Your task to perform on an android device: Show the shopping cart on amazon.com. Image 0: 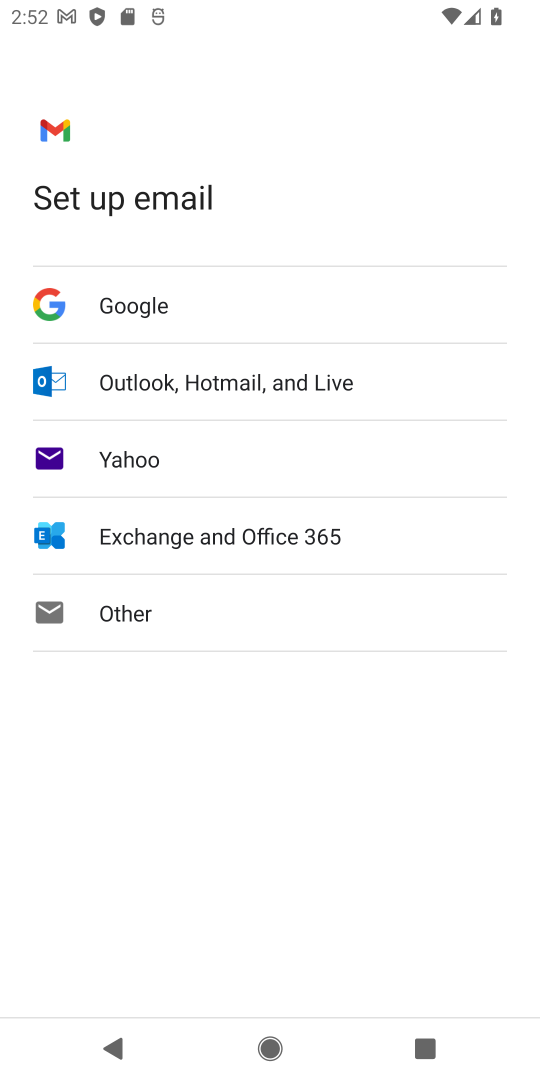
Step 0: press home button
Your task to perform on an android device: Show the shopping cart on amazon.com. Image 1: 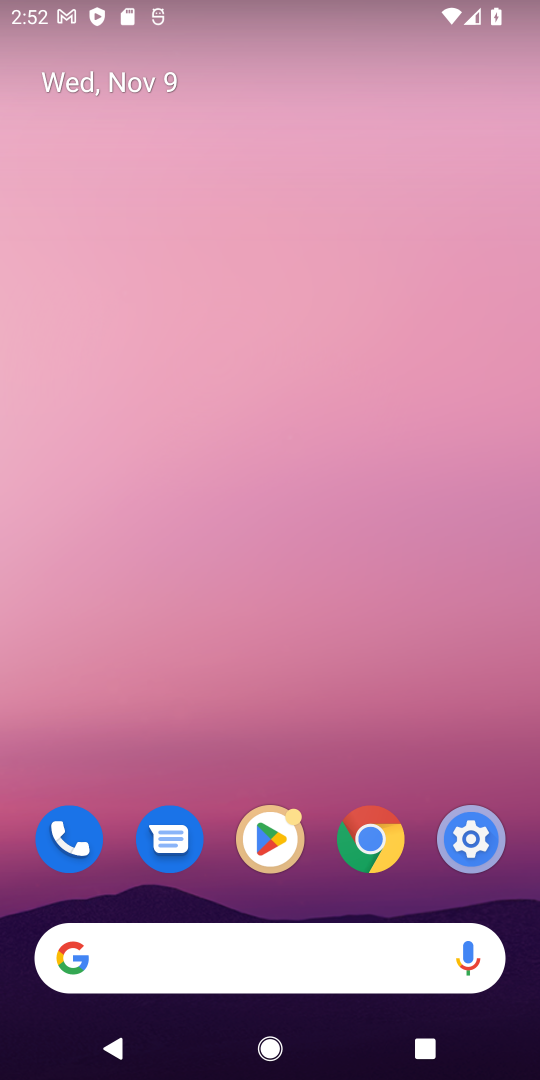
Step 1: click (295, 954)
Your task to perform on an android device: Show the shopping cart on amazon.com. Image 2: 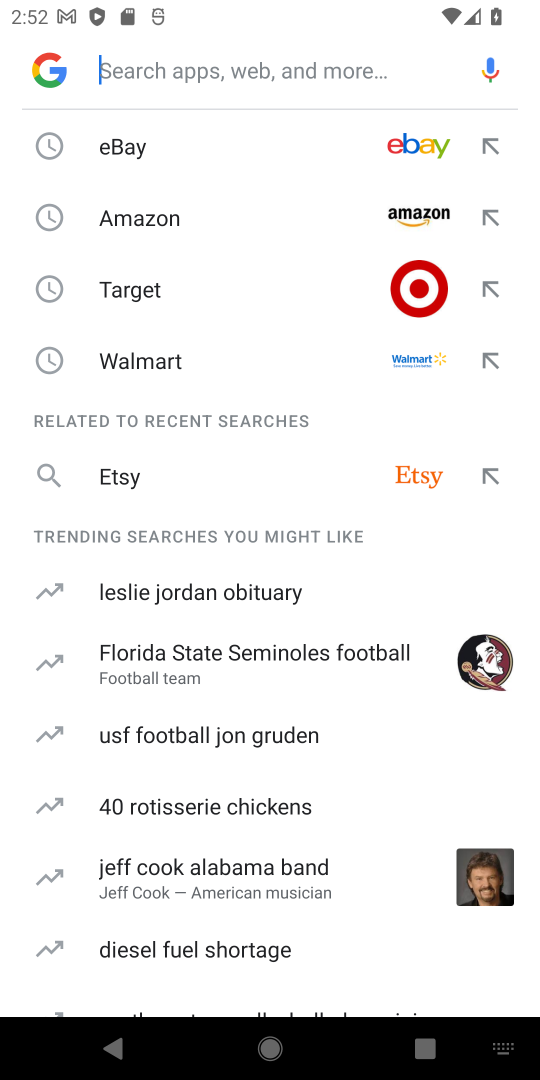
Step 2: click (269, 237)
Your task to perform on an android device: Show the shopping cart on amazon.com. Image 3: 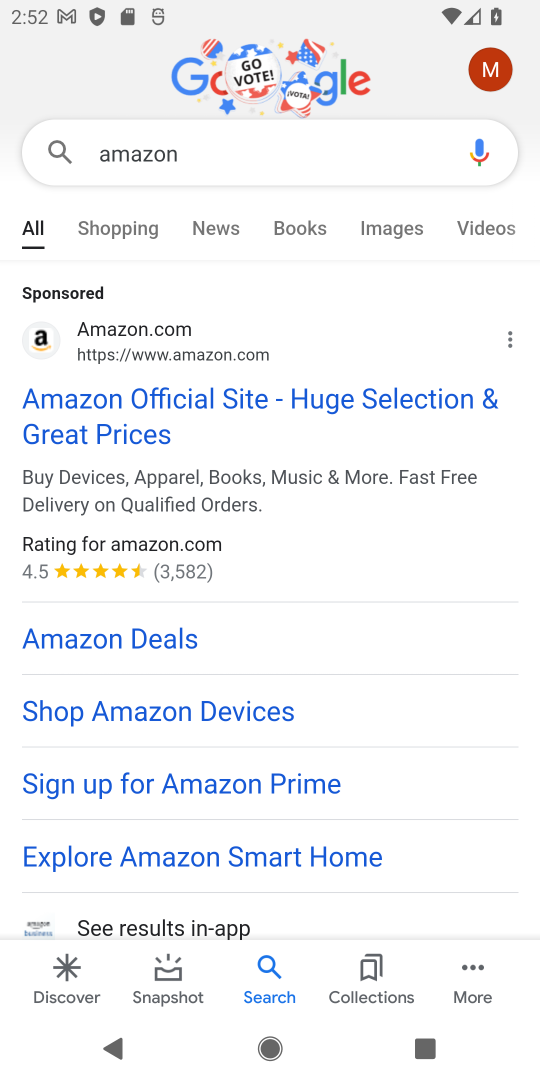
Step 3: click (61, 407)
Your task to perform on an android device: Show the shopping cart on amazon.com. Image 4: 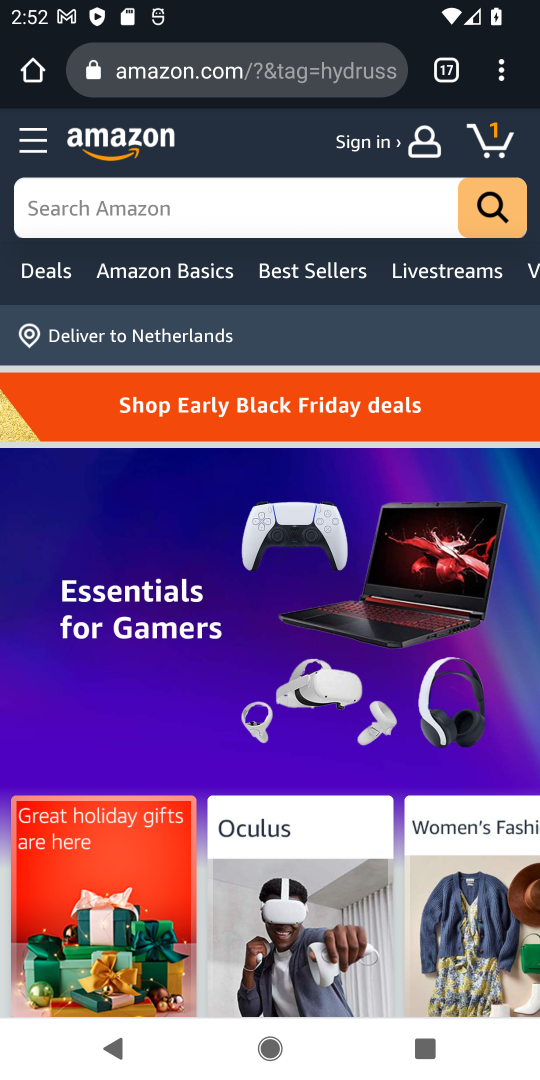
Step 4: click (107, 198)
Your task to perform on an android device: Show the shopping cart on amazon.com. Image 5: 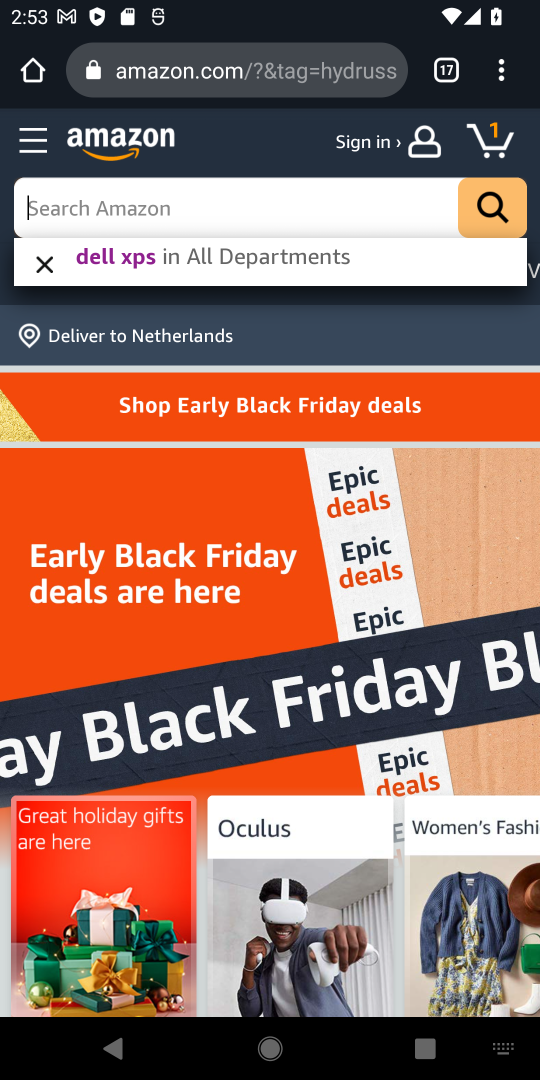
Step 5: task complete